Your task to perform on an android device: toggle notification dots Image 0: 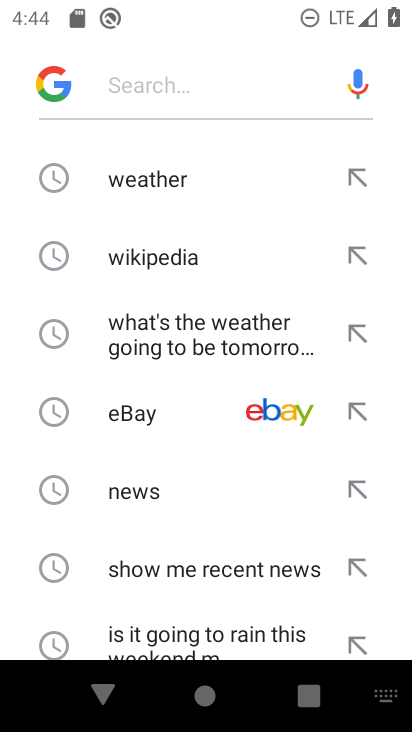
Step 0: press back button
Your task to perform on an android device: toggle notification dots Image 1: 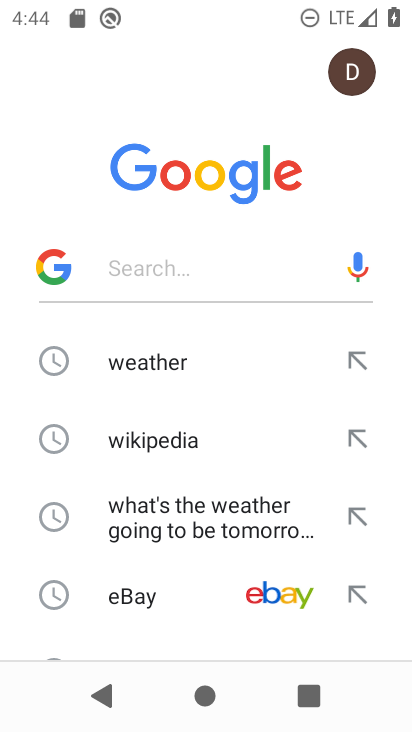
Step 1: press back button
Your task to perform on an android device: toggle notification dots Image 2: 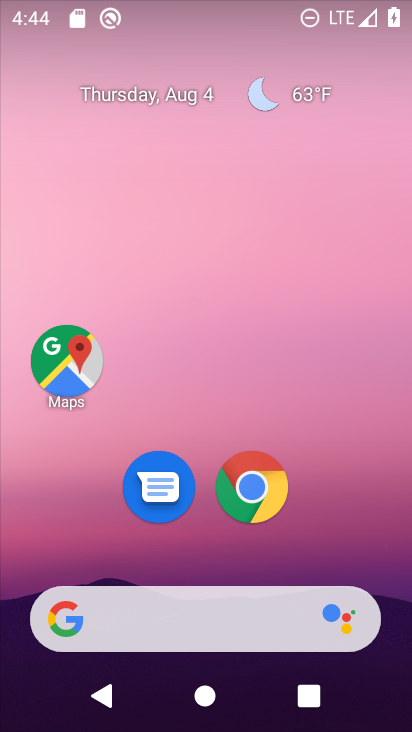
Step 2: drag from (85, 501) to (160, 117)
Your task to perform on an android device: toggle notification dots Image 3: 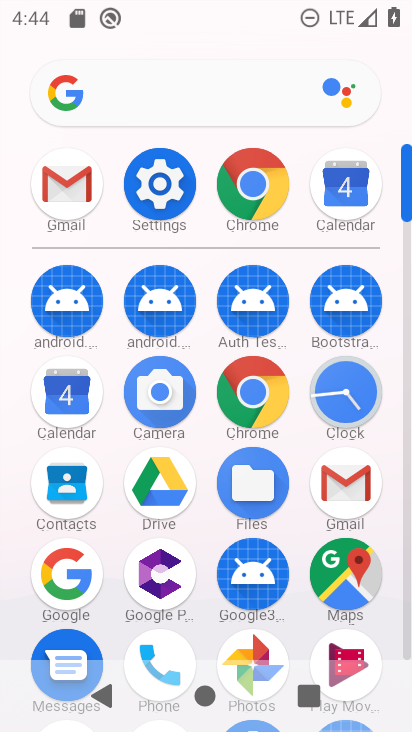
Step 3: click (163, 211)
Your task to perform on an android device: toggle notification dots Image 4: 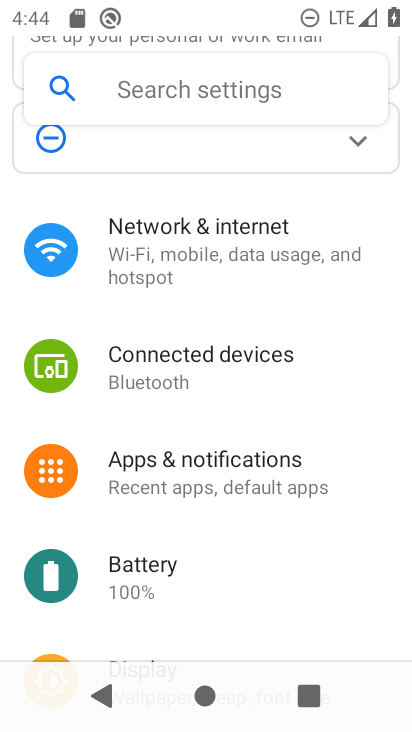
Step 4: click (187, 487)
Your task to perform on an android device: toggle notification dots Image 5: 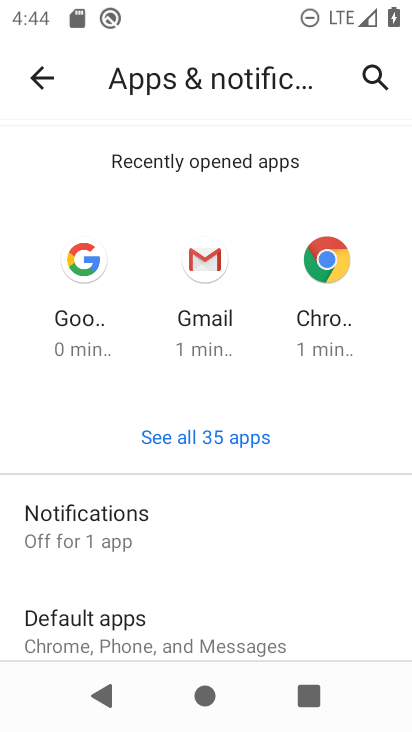
Step 5: click (164, 534)
Your task to perform on an android device: toggle notification dots Image 6: 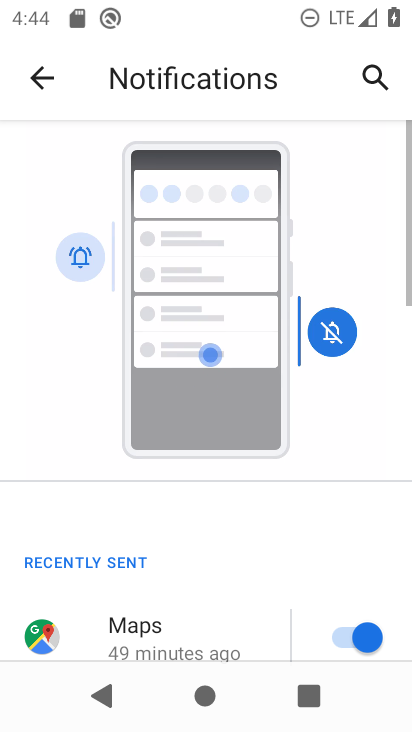
Step 6: drag from (171, 622) to (258, 52)
Your task to perform on an android device: toggle notification dots Image 7: 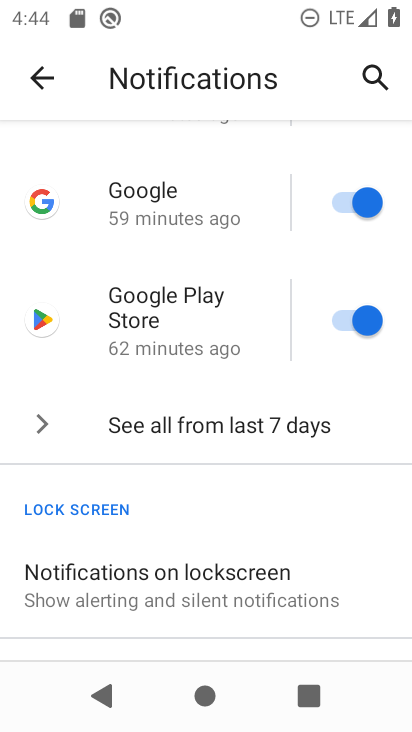
Step 7: drag from (207, 611) to (225, 188)
Your task to perform on an android device: toggle notification dots Image 8: 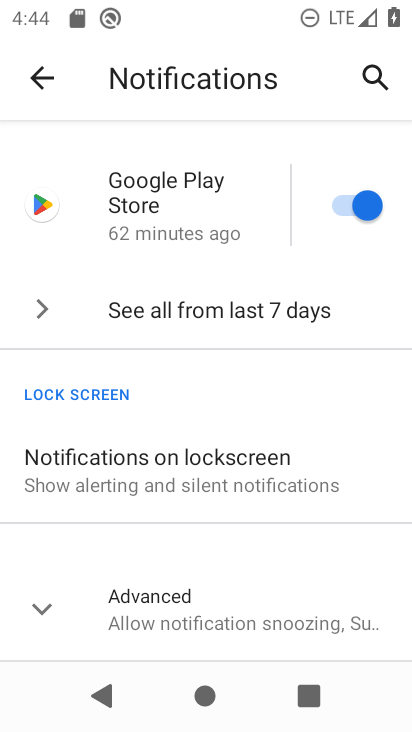
Step 8: click (159, 618)
Your task to perform on an android device: toggle notification dots Image 9: 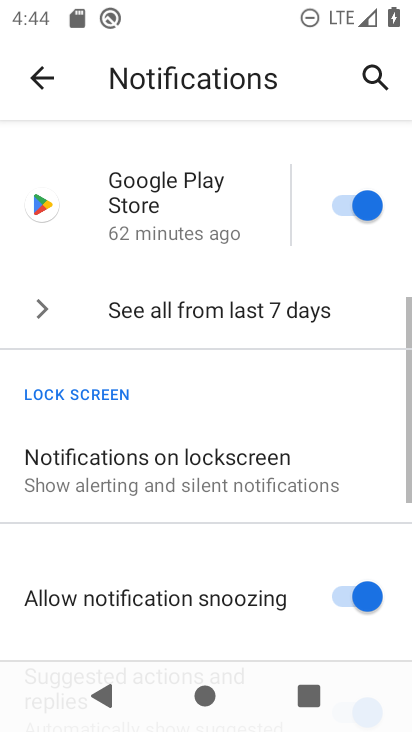
Step 9: drag from (166, 618) to (193, 178)
Your task to perform on an android device: toggle notification dots Image 10: 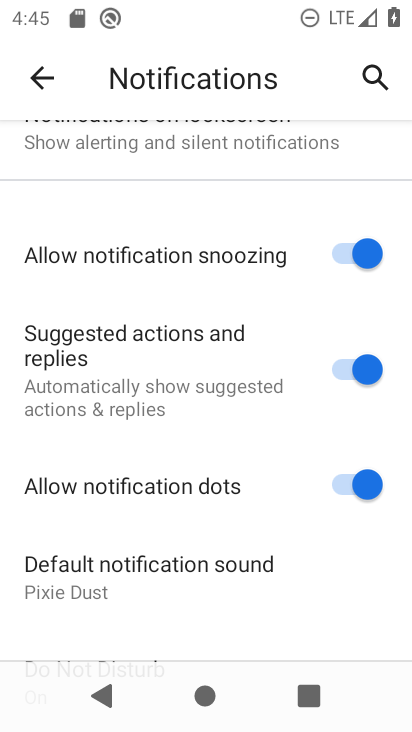
Step 10: click (361, 483)
Your task to perform on an android device: toggle notification dots Image 11: 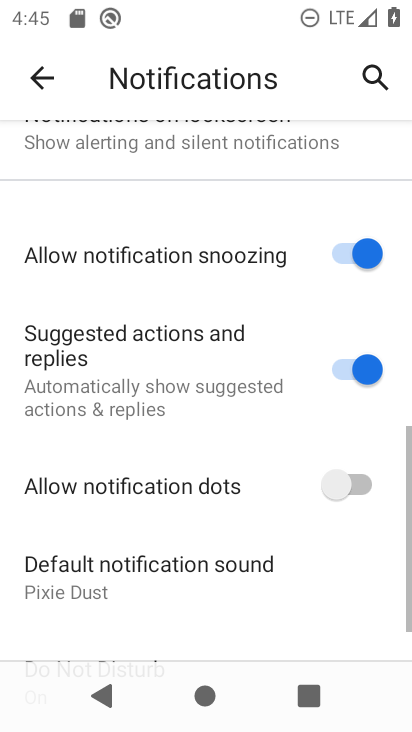
Step 11: task complete